Your task to perform on an android device: open app "NewsBreak: Local News & Alerts" (install if not already installed), go to login, and select forgot password Image 0: 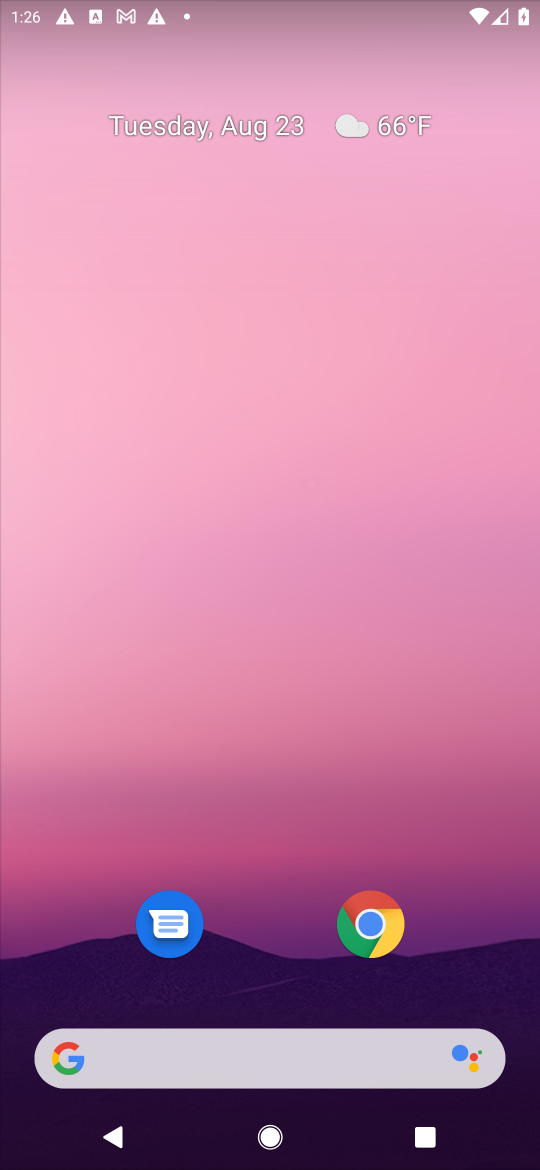
Step 0: press home button
Your task to perform on an android device: open app "NewsBreak: Local News & Alerts" (install if not already installed), go to login, and select forgot password Image 1: 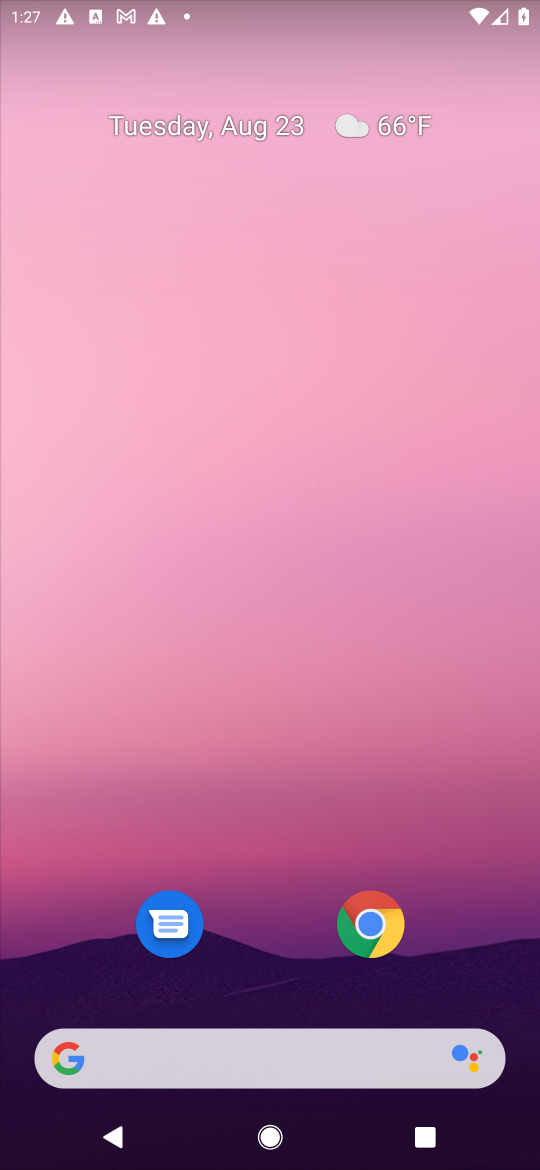
Step 1: drag from (462, 959) to (465, 160)
Your task to perform on an android device: open app "NewsBreak: Local News & Alerts" (install if not already installed), go to login, and select forgot password Image 2: 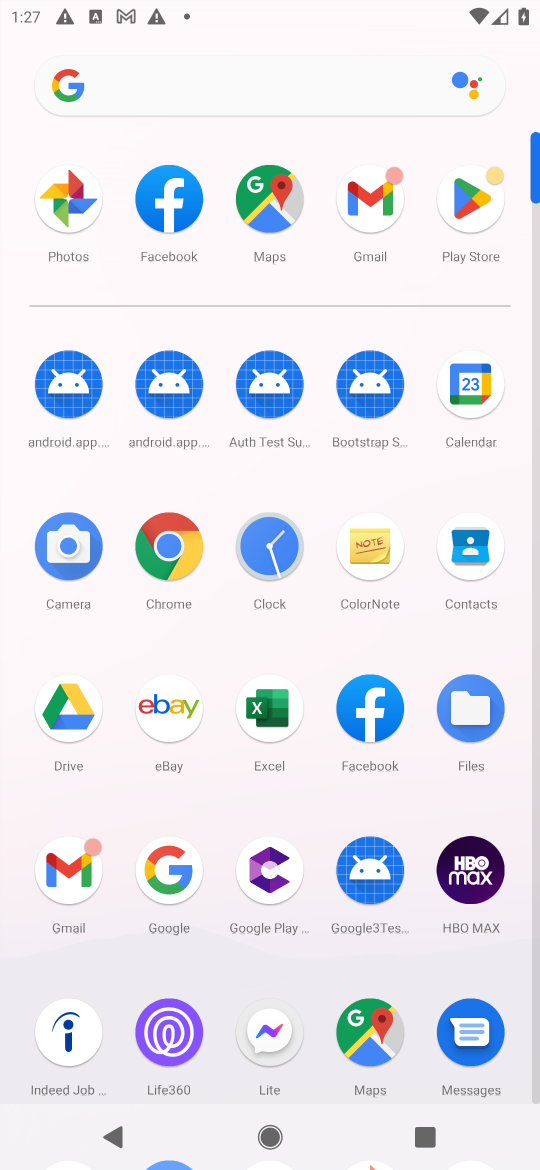
Step 2: click (470, 196)
Your task to perform on an android device: open app "NewsBreak: Local News & Alerts" (install if not already installed), go to login, and select forgot password Image 3: 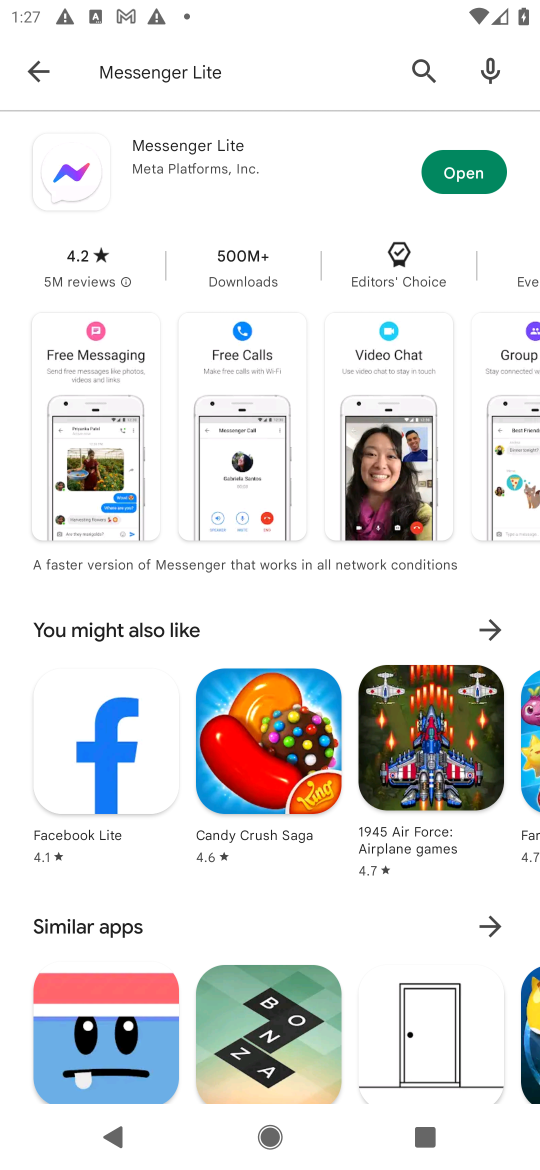
Step 3: press back button
Your task to perform on an android device: open app "NewsBreak: Local News & Alerts" (install if not already installed), go to login, and select forgot password Image 4: 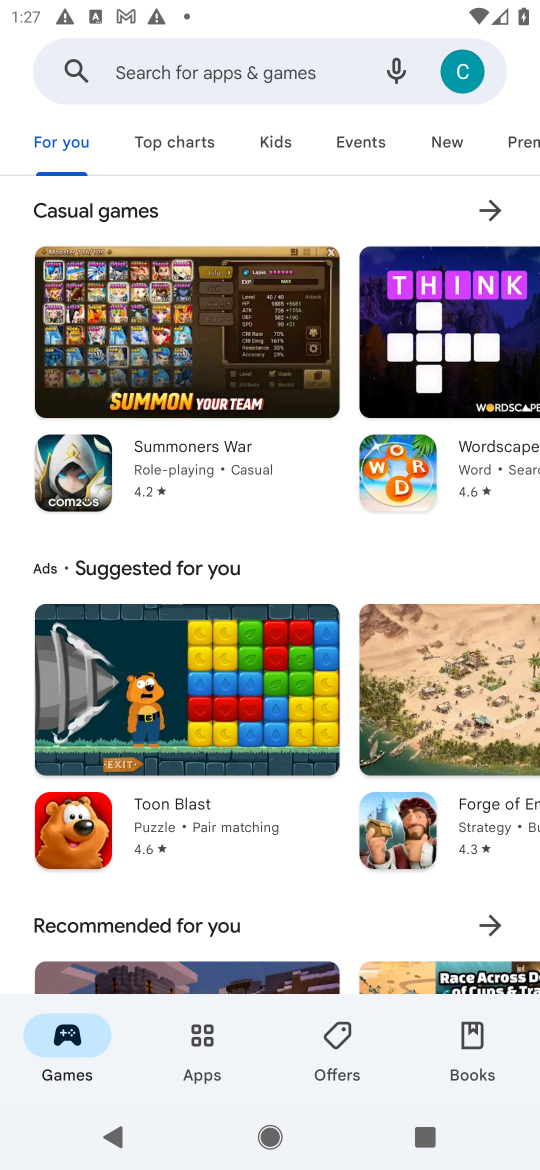
Step 4: click (197, 66)
Your task to perform on an android device: open app "NewsBreak: Local News & Alerts" (install if not already installed), go to login, and select forgot password Image 5: 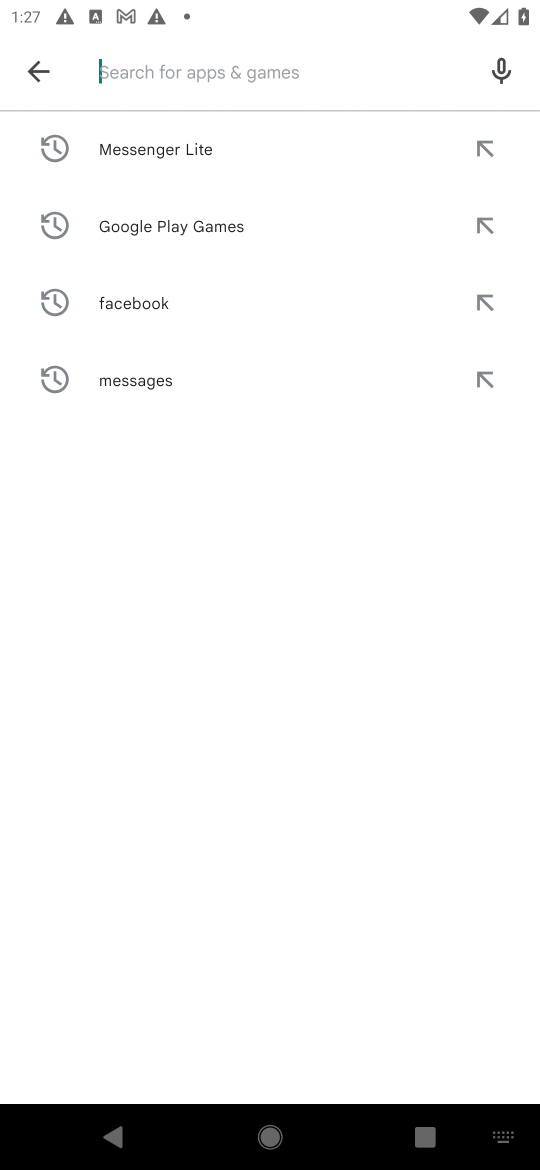
Step 5: type "NewsBreak: Local News & Alerts"
Your task to perform on an android device: open app "NewsBreak: Local News & Alerts" (install if not already installed), go to login, and select forgot password Image 6: 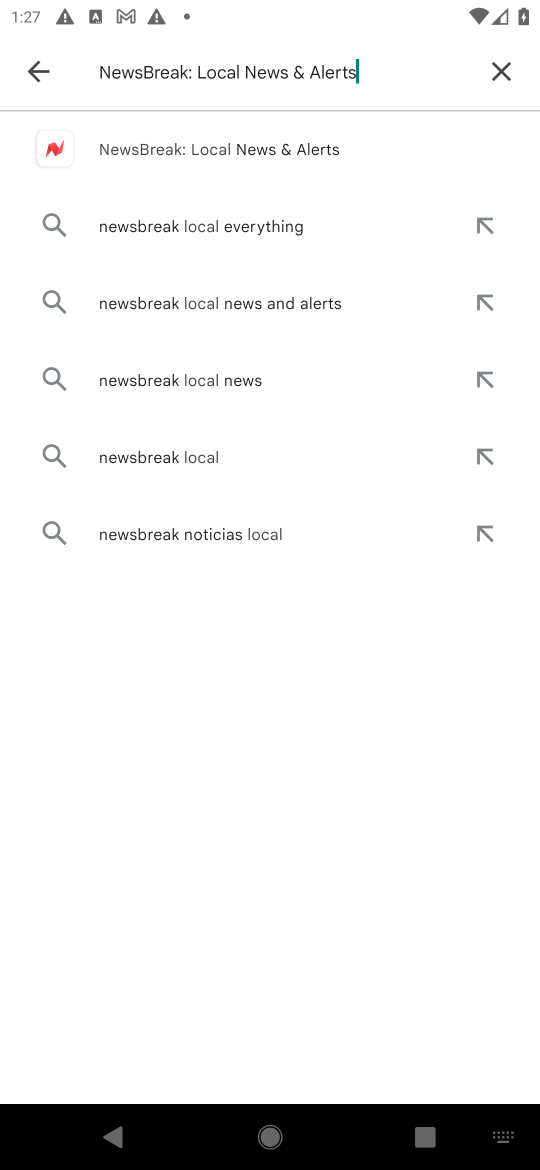
Step 6: press enter
Your task to perform on an android device: open app "NewsBreak: Local News & Alerts" (install if not already installed), go to login, and select forgot password Image 7: 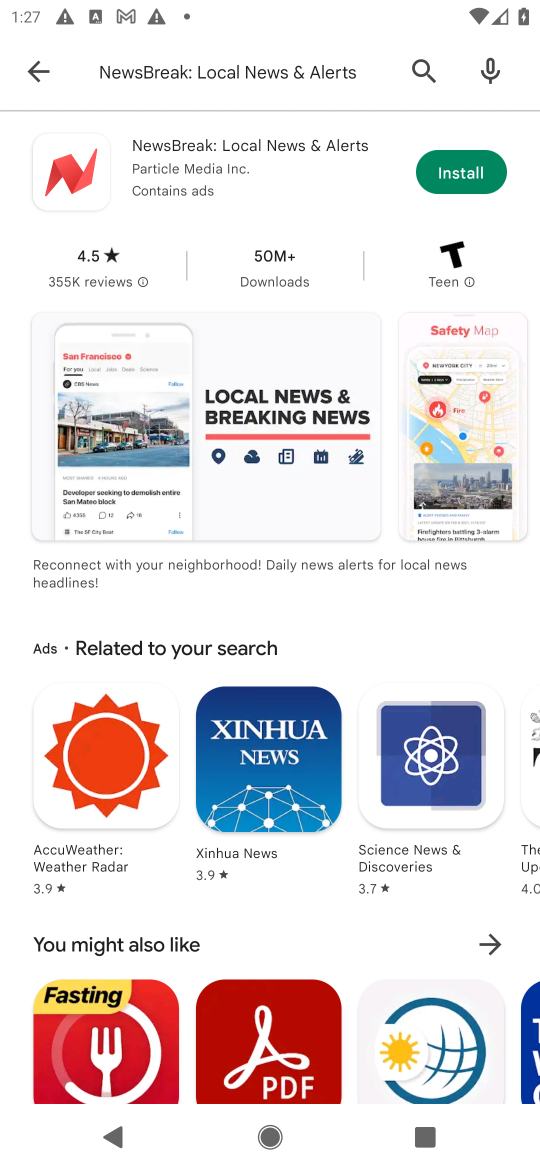
Step 7: click (468, 174)
Your task to perform on an android device: open app "NewsBreak: Local News & Alerts" (install if not already installed), go to login, and select forgot password Image 8: 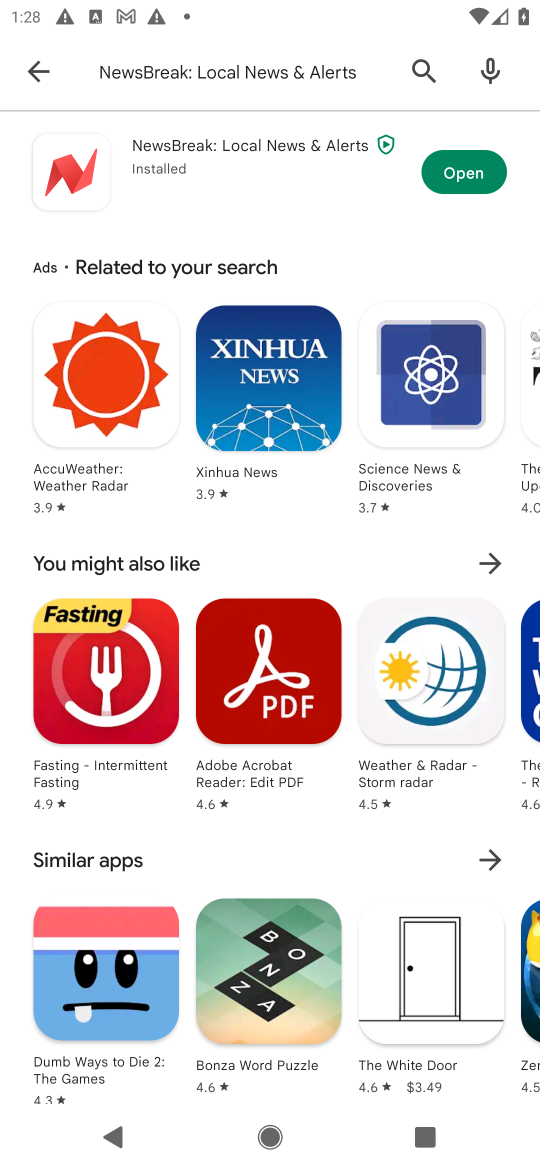
Step 8: click (473, 176)
Your task to perform on an android device: open app "NewsBreak: Local News & Alerts" (install if not already installed), go to login, and select forgot password Image 9: 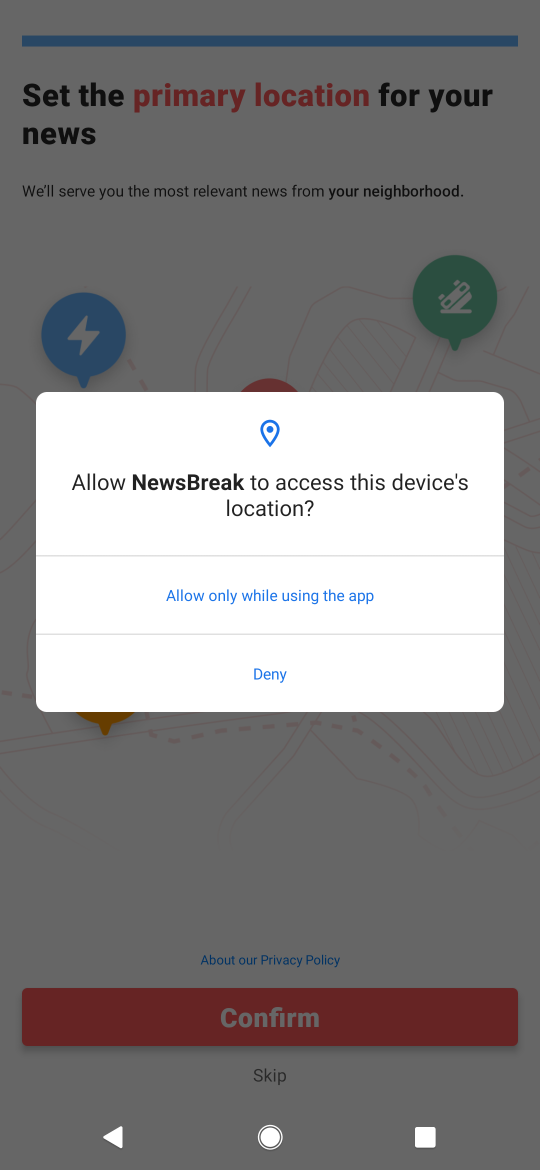
Step 9: click (339, 683)
Your task to perform on an android device: open app "NewsBreak: Local News & Alerts" (install if not already installed), go to login, and select forgot password Image 10: 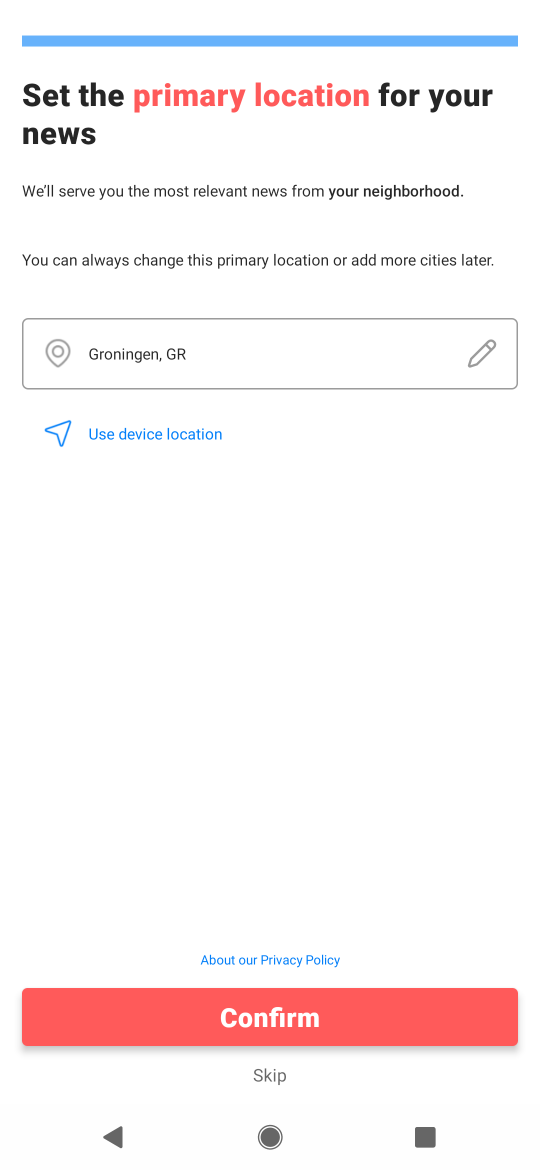
Step 10: click (303, 1005)
Your task to perform on an android device: open app "NewsBreak: Local News & Alerts" (install if not already installed), go to login, and select forgot password Image 11: 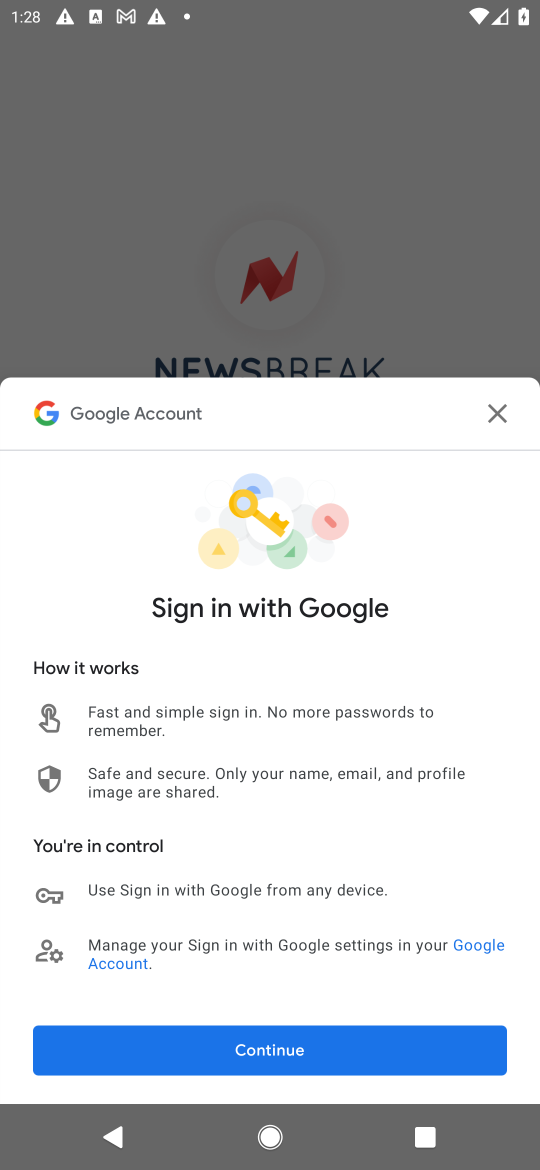
Step 11: click (386, 1048)
Your task to perform on an android device: open app "NewsBreak: Local News & Alerts" (install if not already installed), go to login, and select forgot password Image 12: 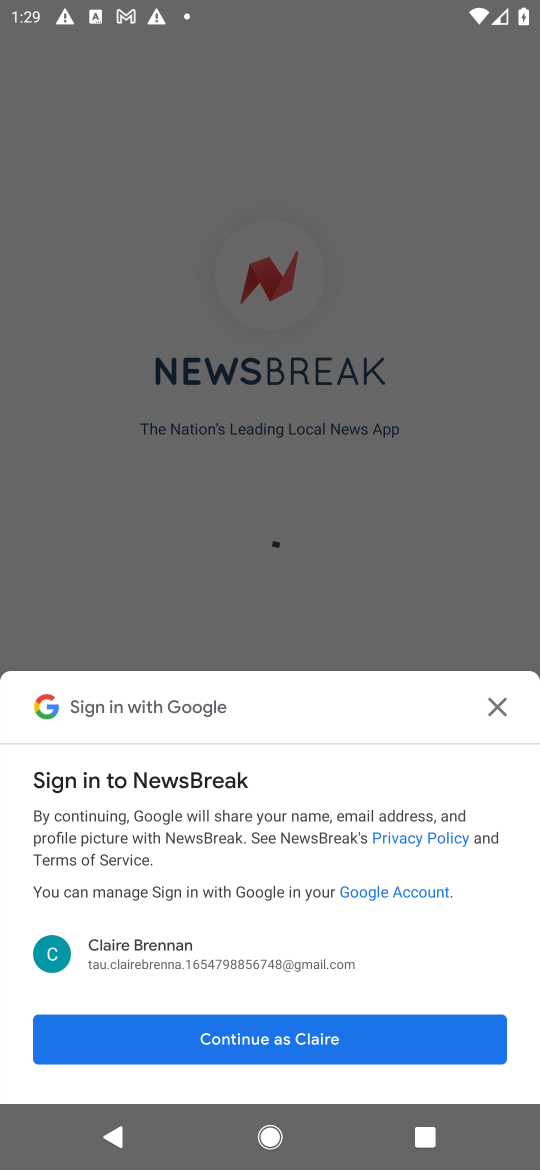
Step 12: click (389, 1040)
Your task to perform on an android device: open app "NewsBreak: Local News & Alerts" (install if not already installed), go to login, and select forgot password Image 13: 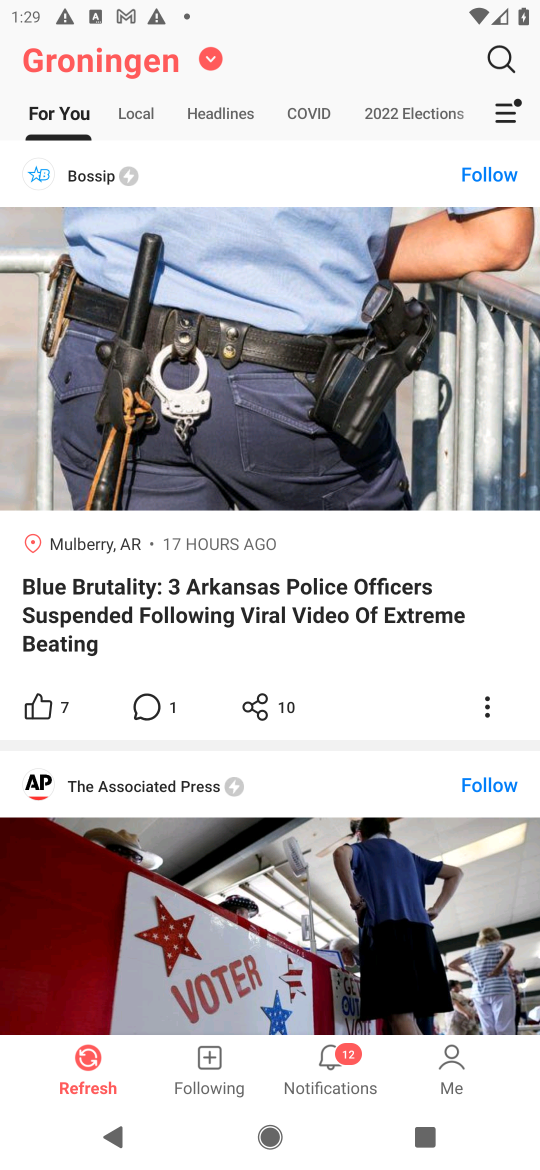
Step 13: task complete